Your task to perform on an android device: Search for custom made wallets on etsy.com Image 0: 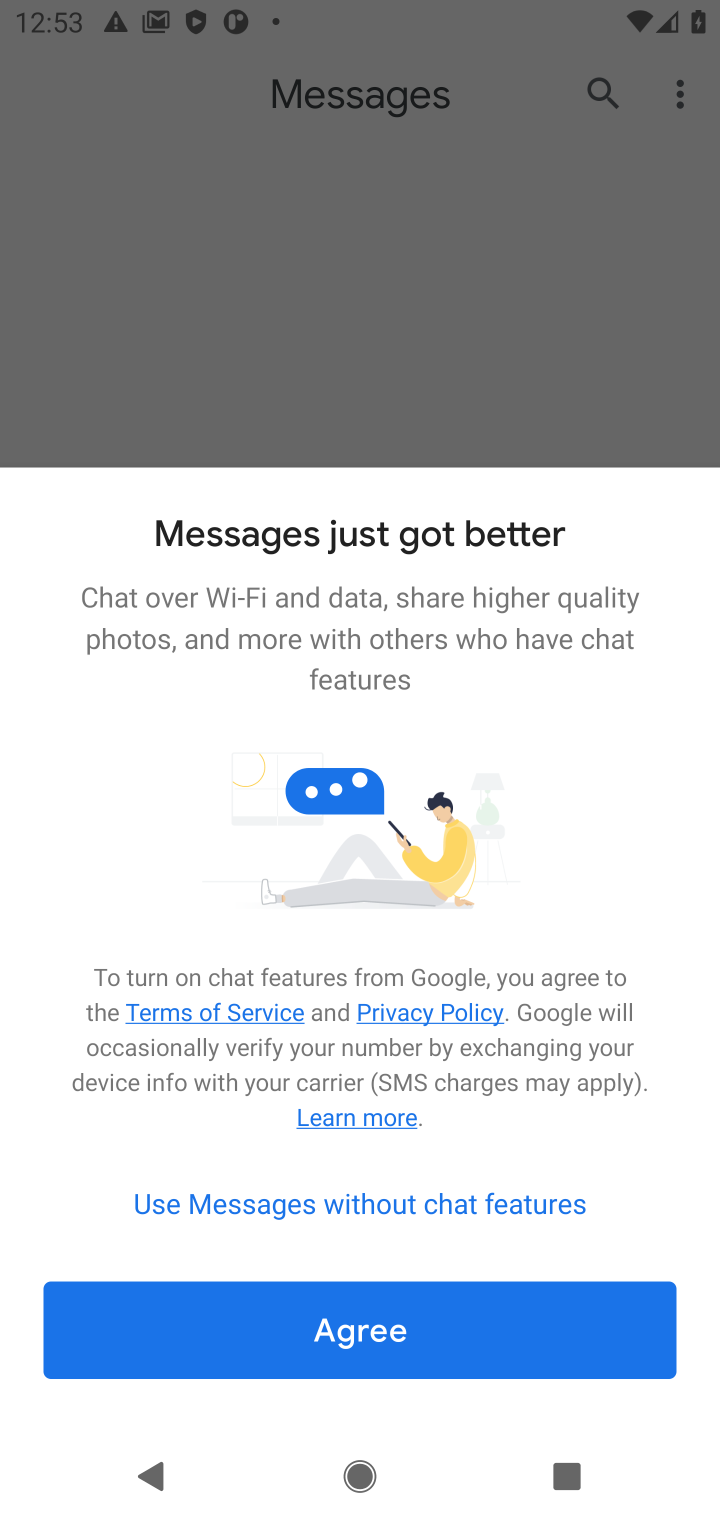
Step 0: press home button
Your task to perform on an android device: Search for custom made wallets on etsy.com Image 1: 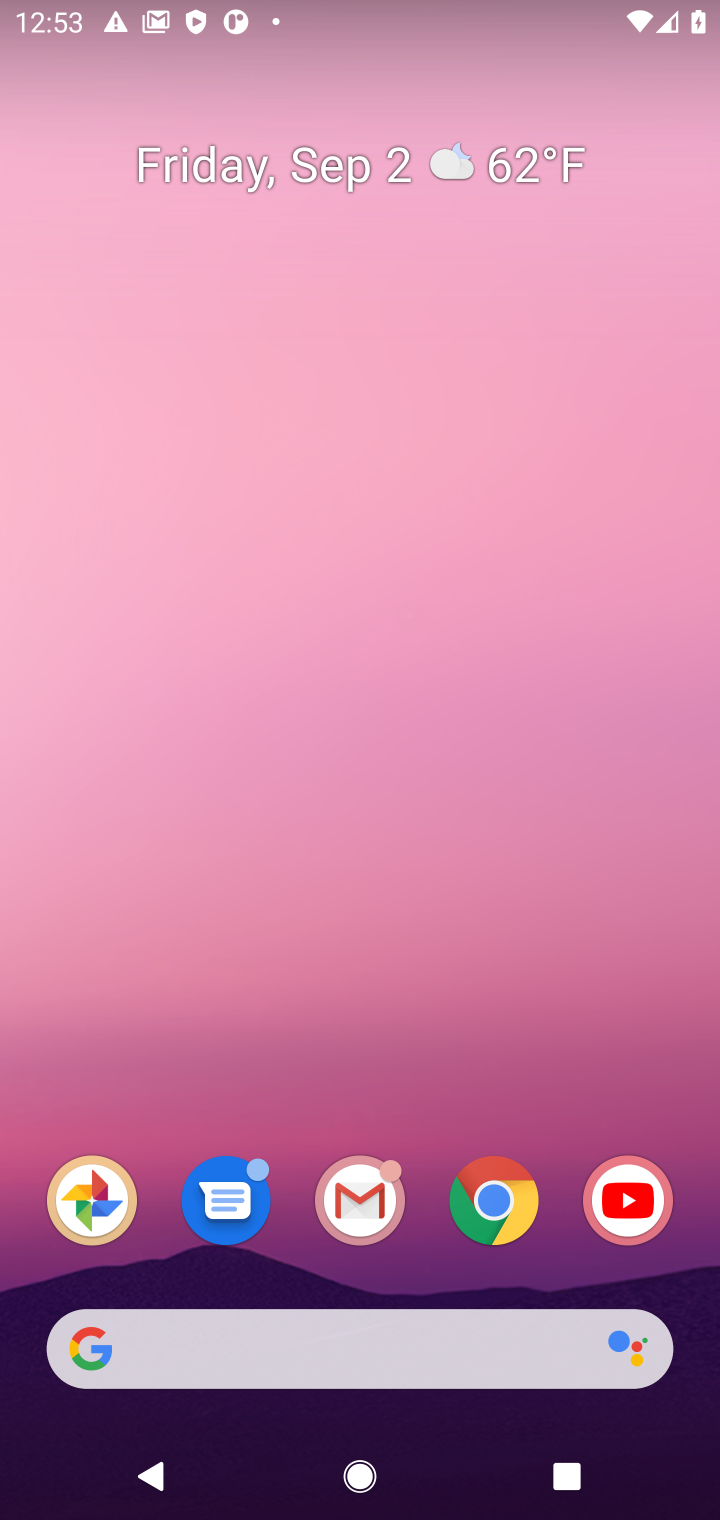
Step 1: click (512, 1201)
Your task to perform on an android device: Search for custom made wallets on etsy.com Image 2: 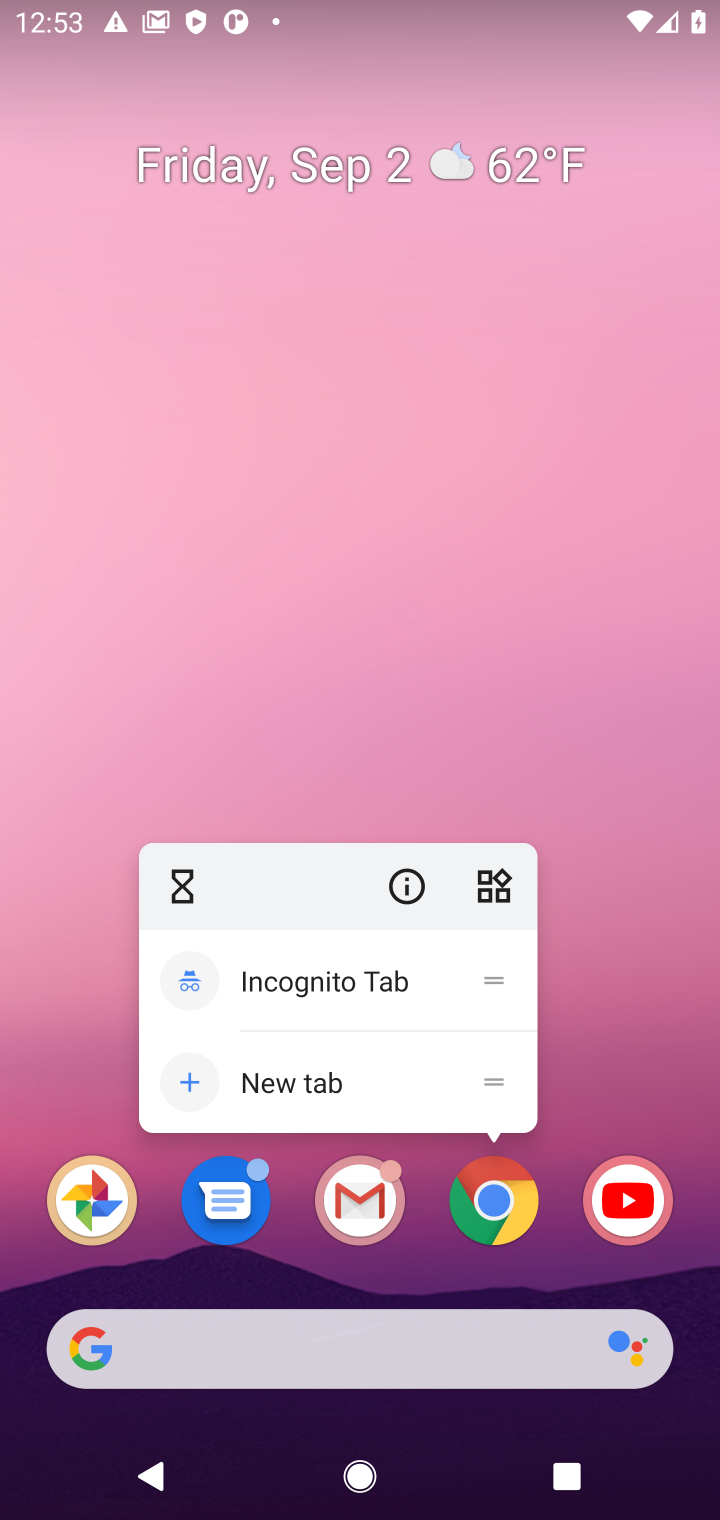
Step 2: click (512, 1201)
Your task to perform on an android device: Search for custom made wallets on etsy.com Image 3: 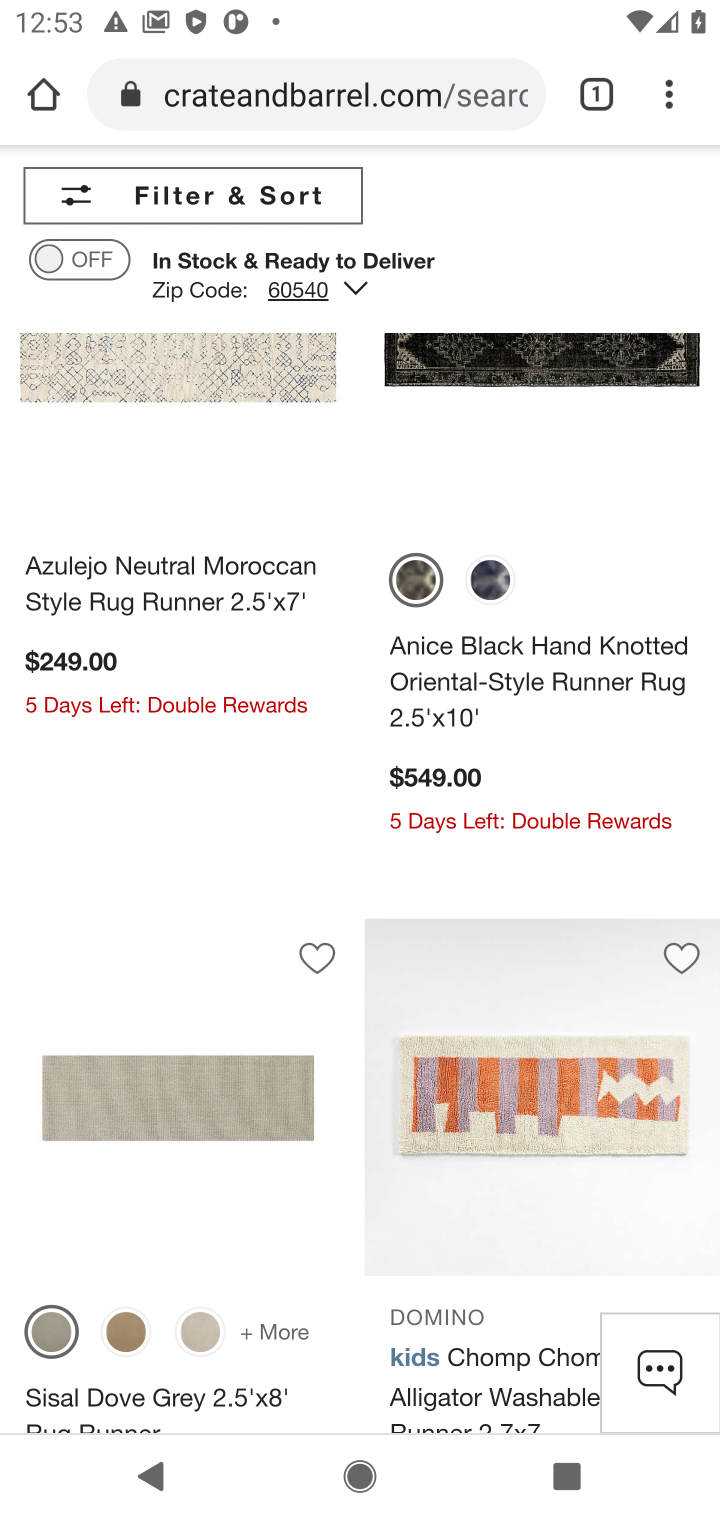
Step 3: click (378, 87)
Your task to perform on an android device: Search for custom made wallets on etsy.com Image 4: 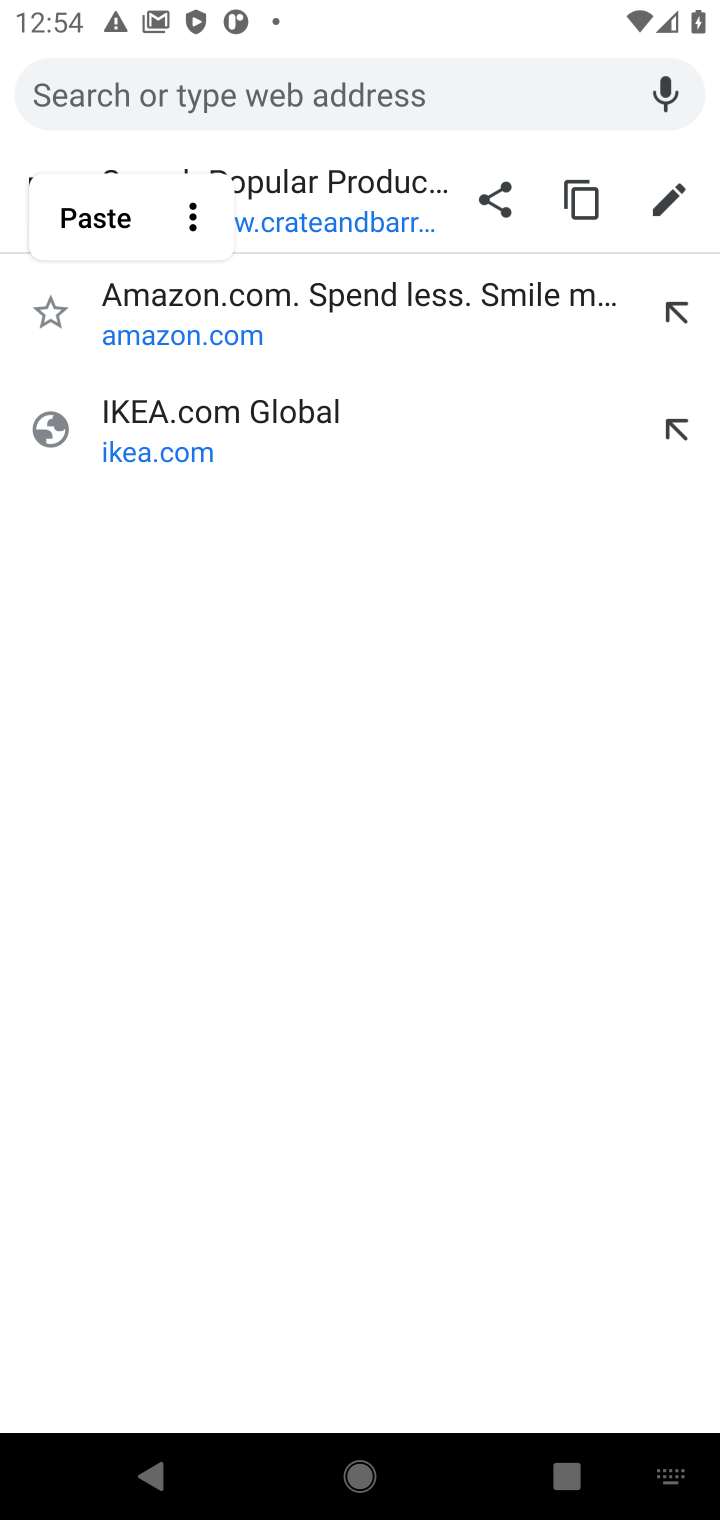
Step 4: press enter
Your task to perform on an android device: Search for custom made wallets on etsy.com Image 5: 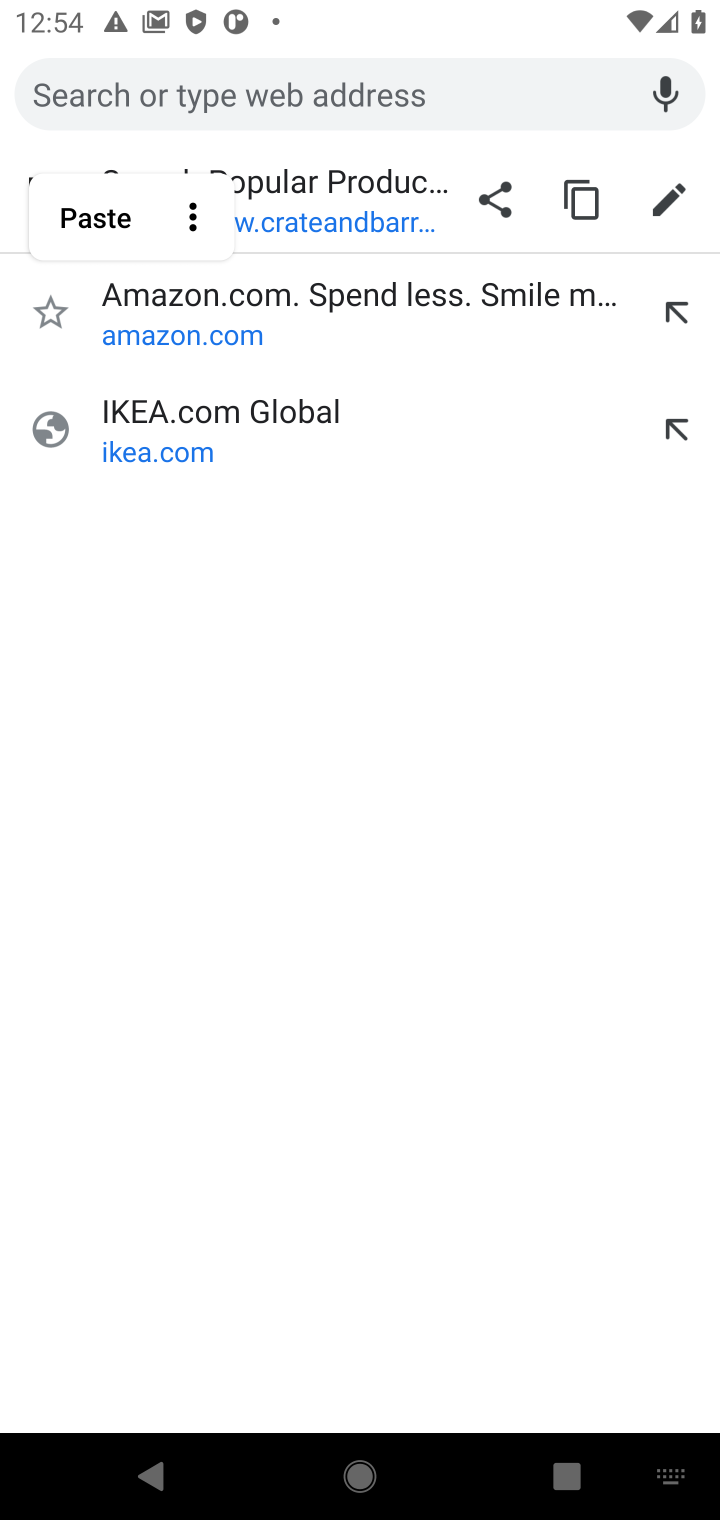
Step 5: type "etsy.com"
Your task to perform on an android device: Search for custom made wallets on etsy.com Image 6: 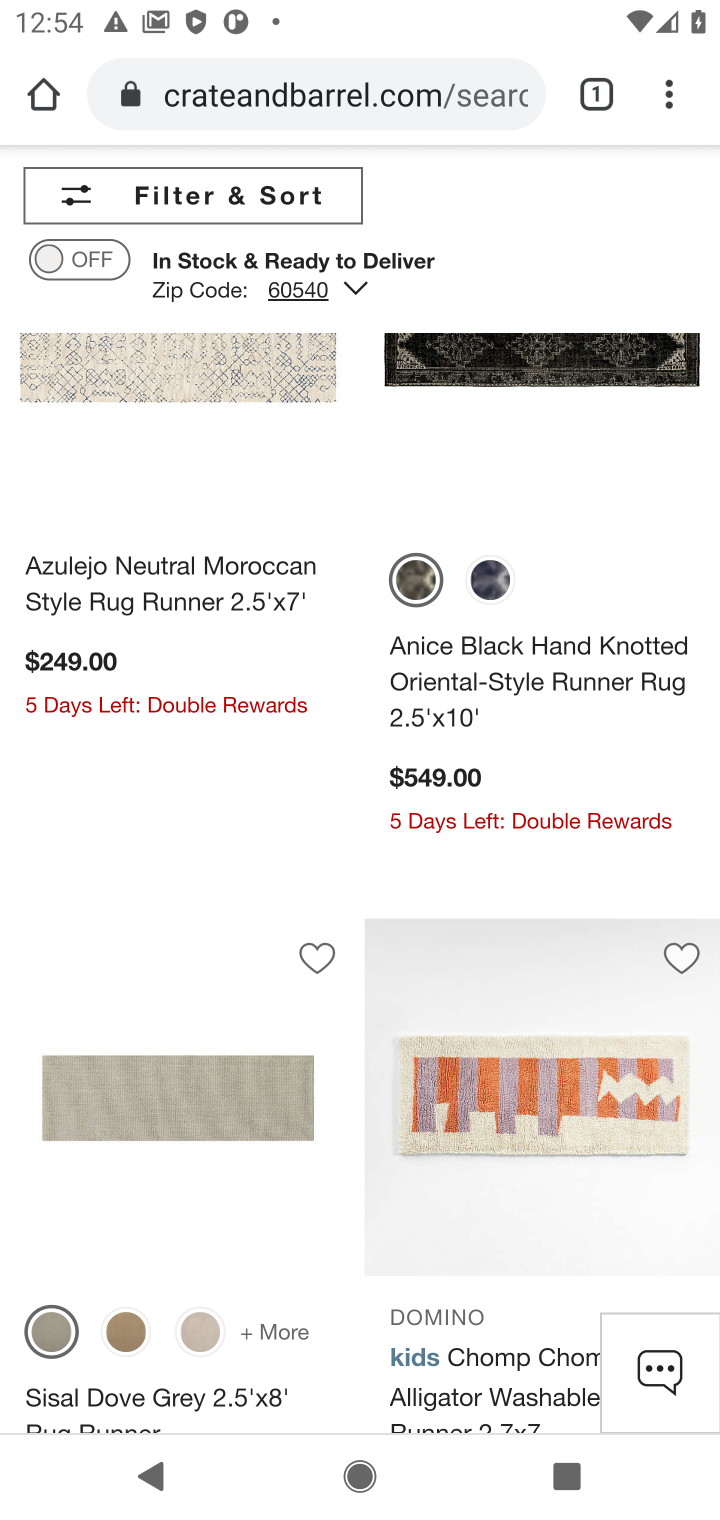
Step 6: click (408, 82)
Your task to perform on an android device: Search for custom made wallets on etsy.com Image 7: 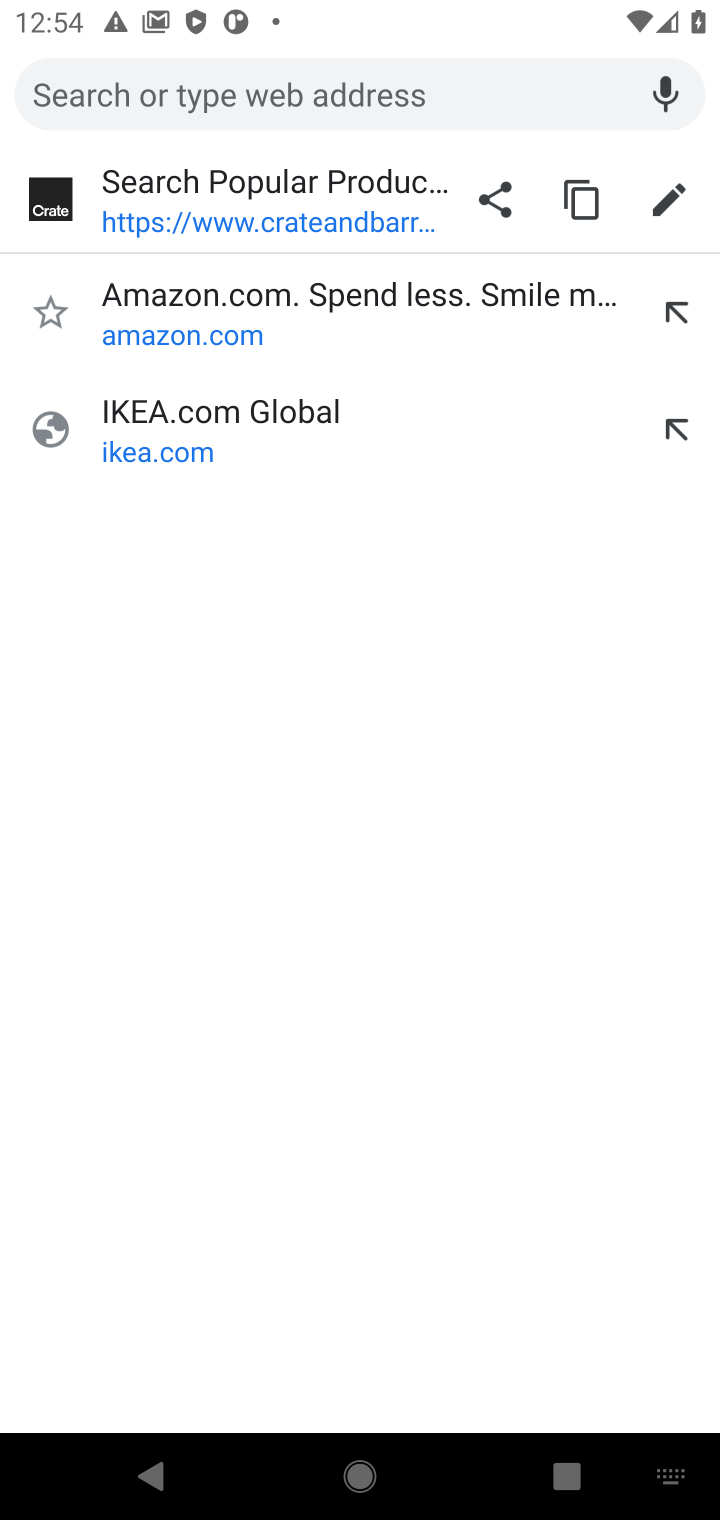
Step 7: type "etsy.com"
Your task to perform on an android device: Search for custom made wallets on etsy.com Image 8: 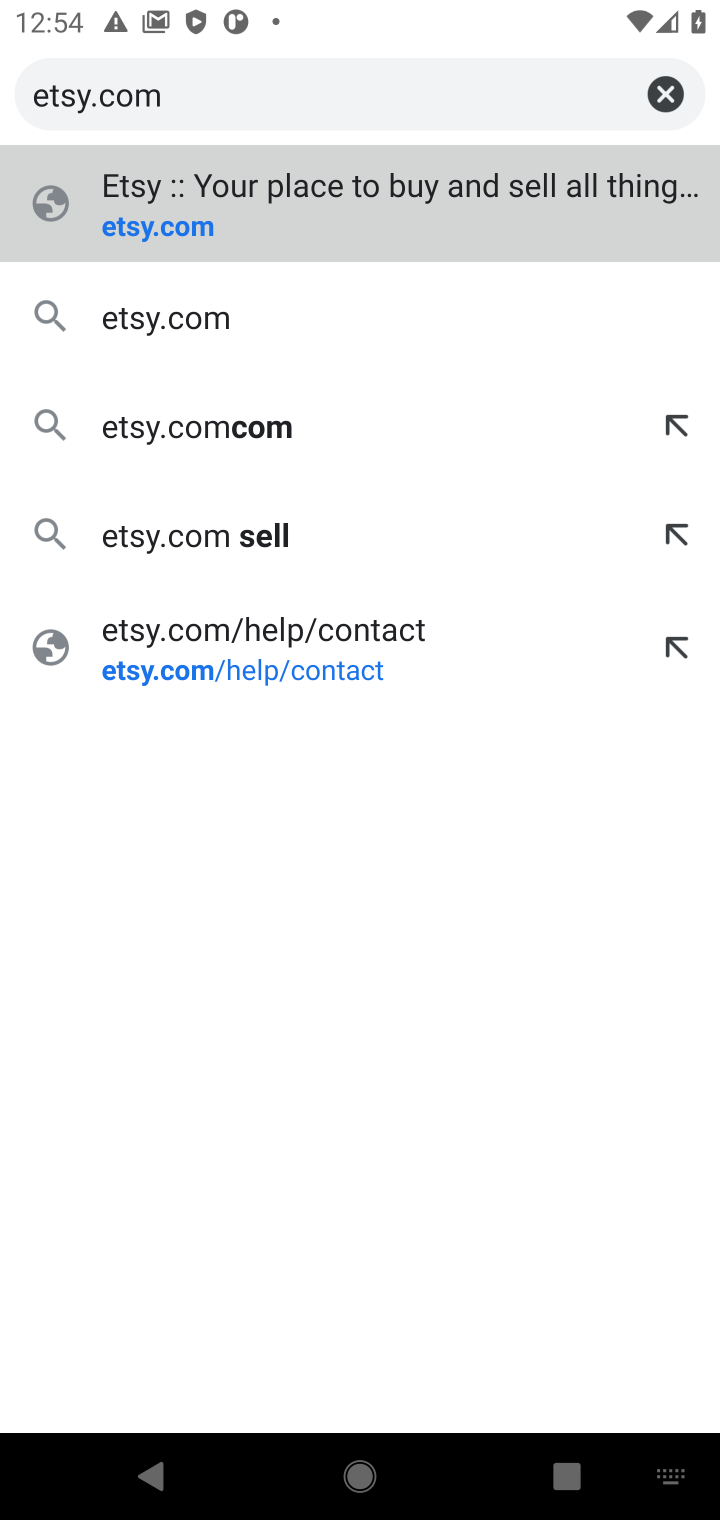
Step 8: press enter
Your task to perform on an android device: Search for custom made wallets on etsy.com Image 9: 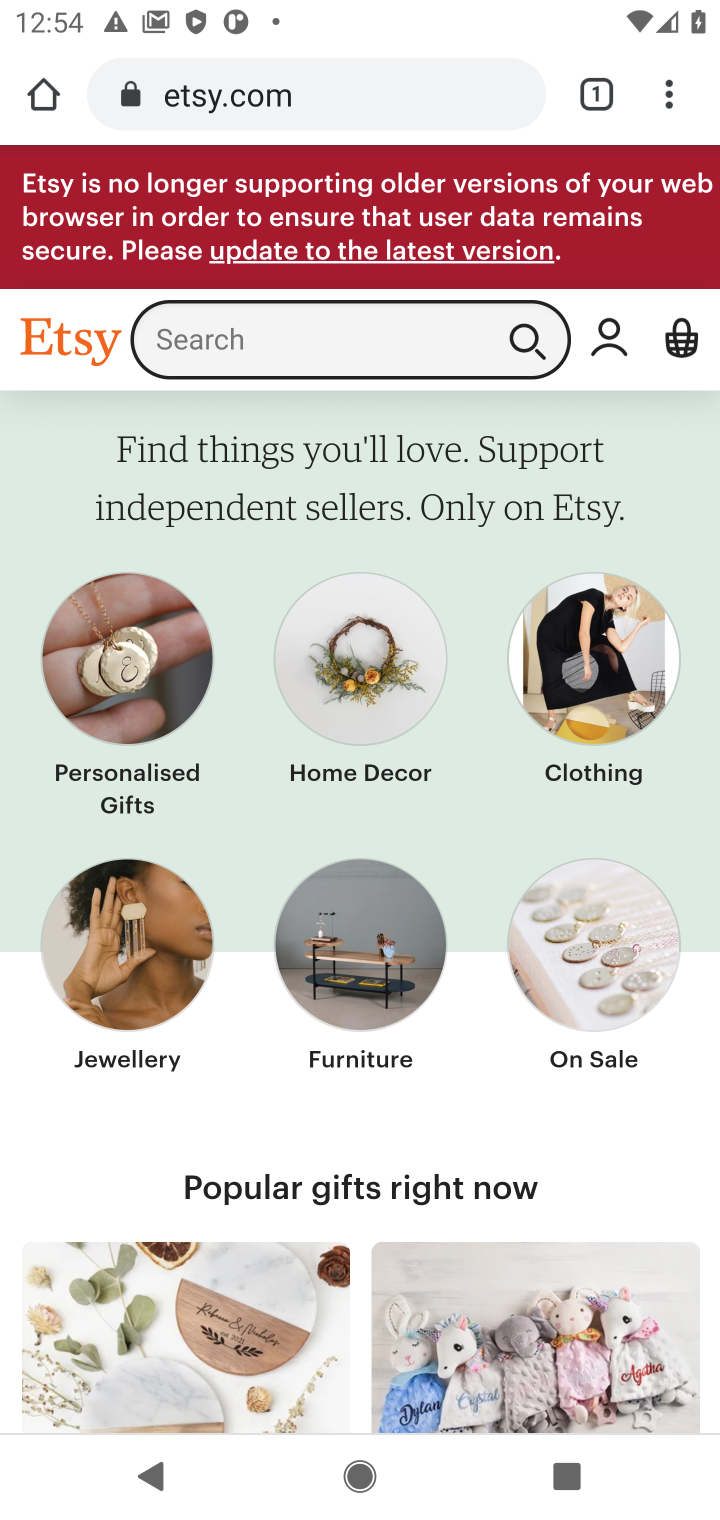
Step 9: click (355, 357)
Your task to perform on an android device: Search for custom made wallets on etsy.com Image 10: 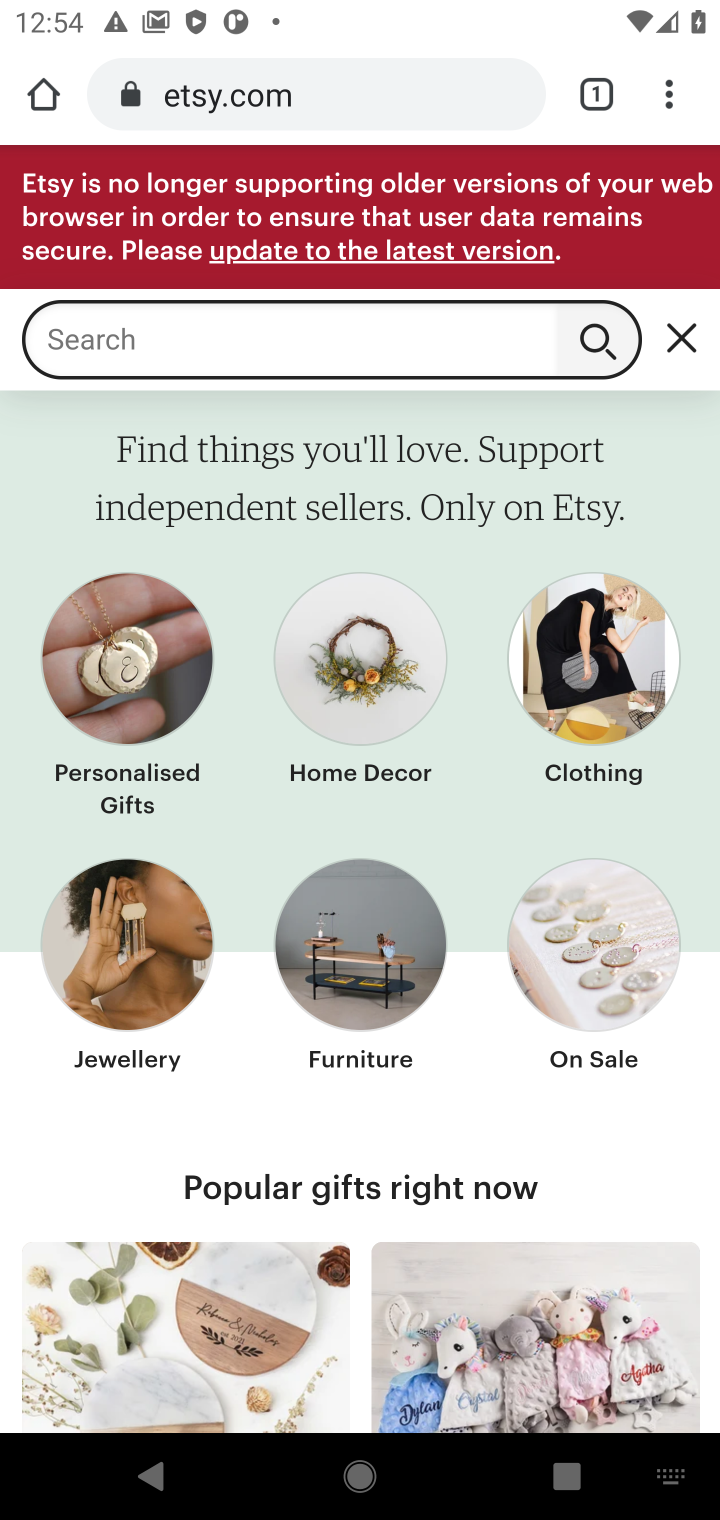
Step 10: click (387, 339)
Your task to perform on an android device: Search for custom made wallets on etsy.com Image 11: 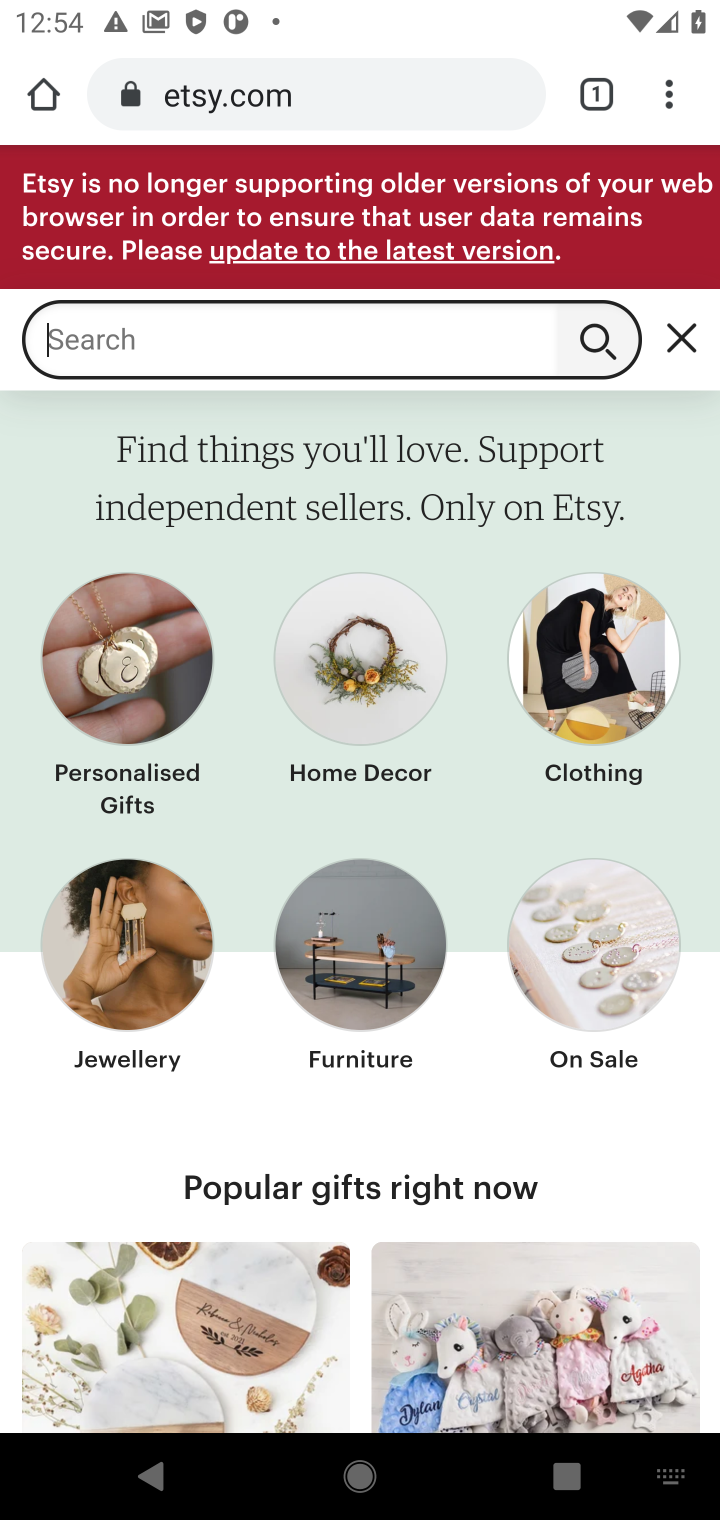
Step 11: press enter
Your task to perform on an android device: Search for custom made wallets on etsy.com Image 12: 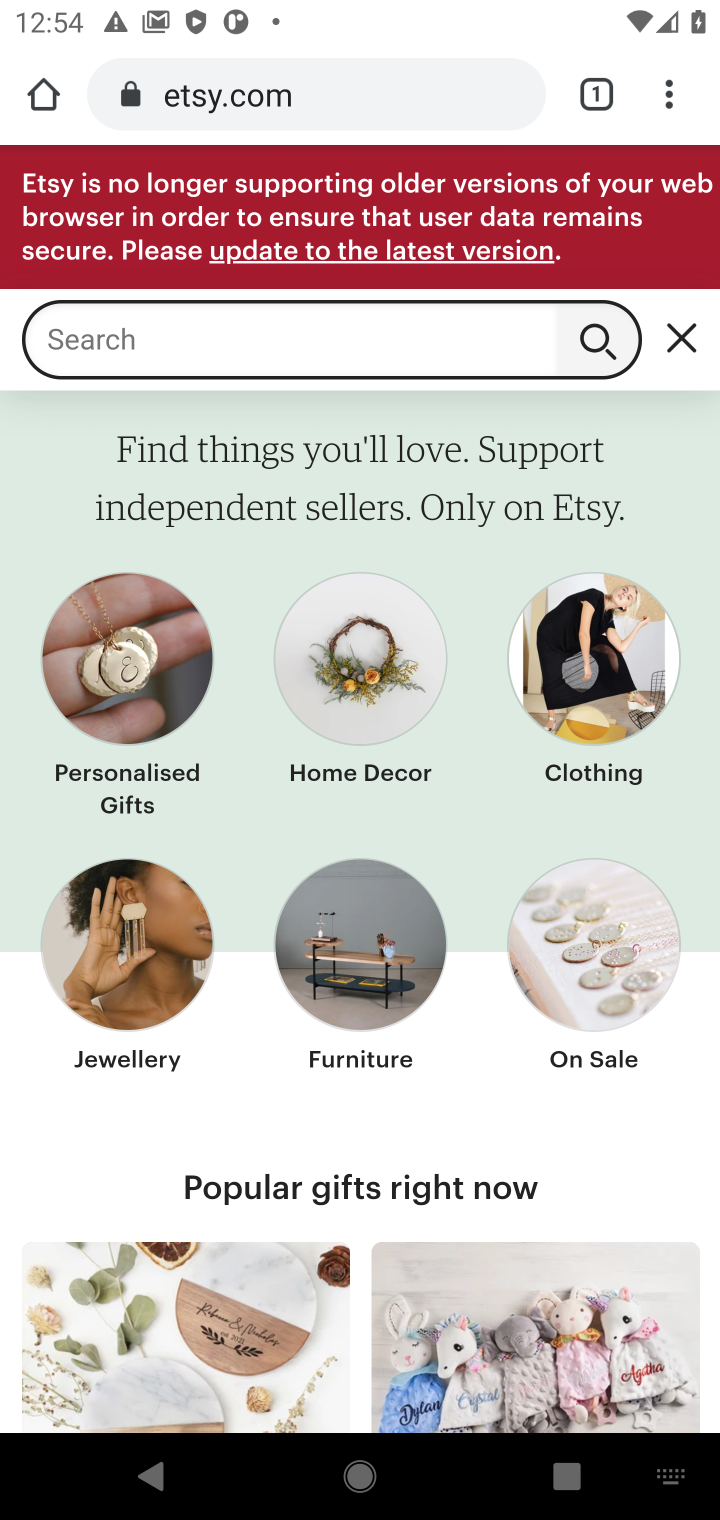
Step 12: type " custom made wallets"
Your task to perform on an android device: Search for custom made wallets on etsy.com Image 13: 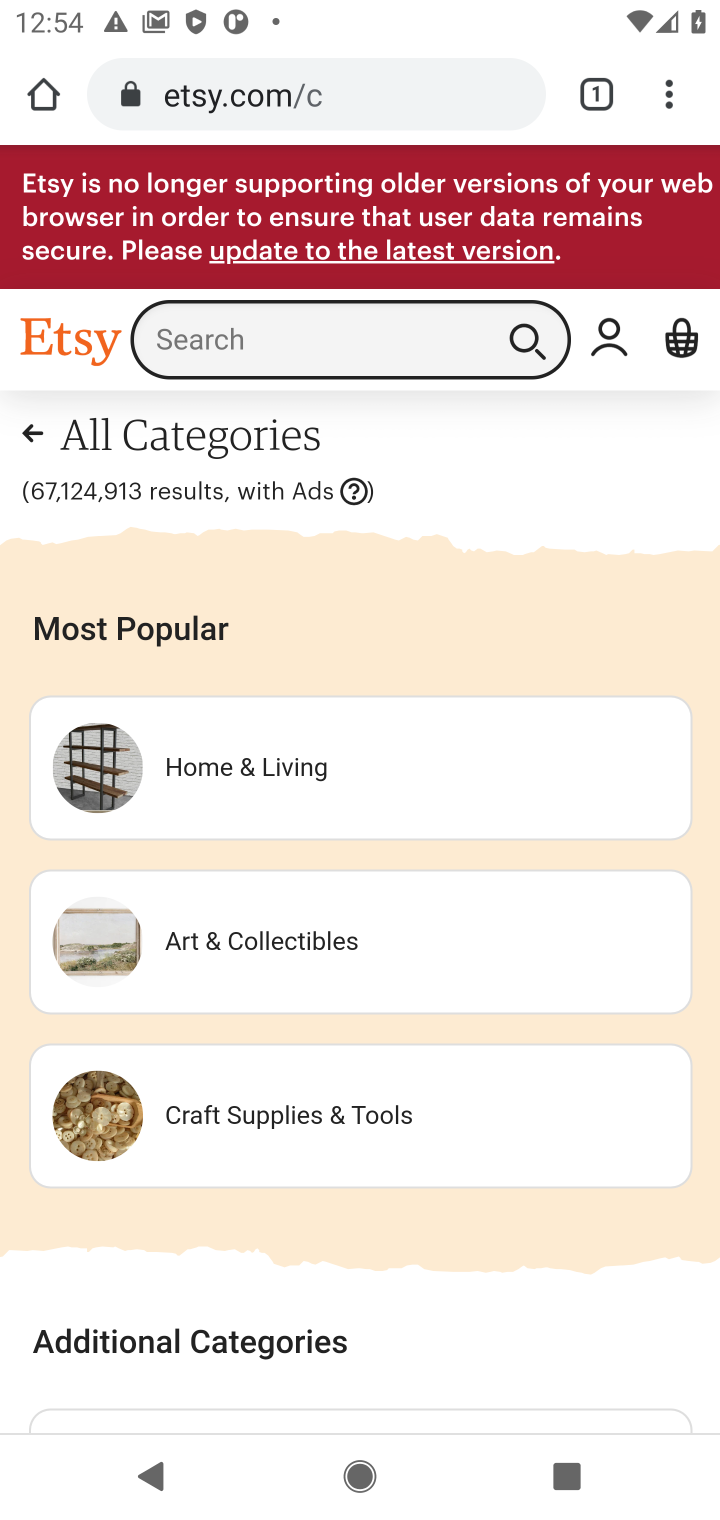
Step 13: drag from (320, 1030) to (332, 907)
Your task to perform on an android device: Search for custom made wallets on etsy.com Image 14: 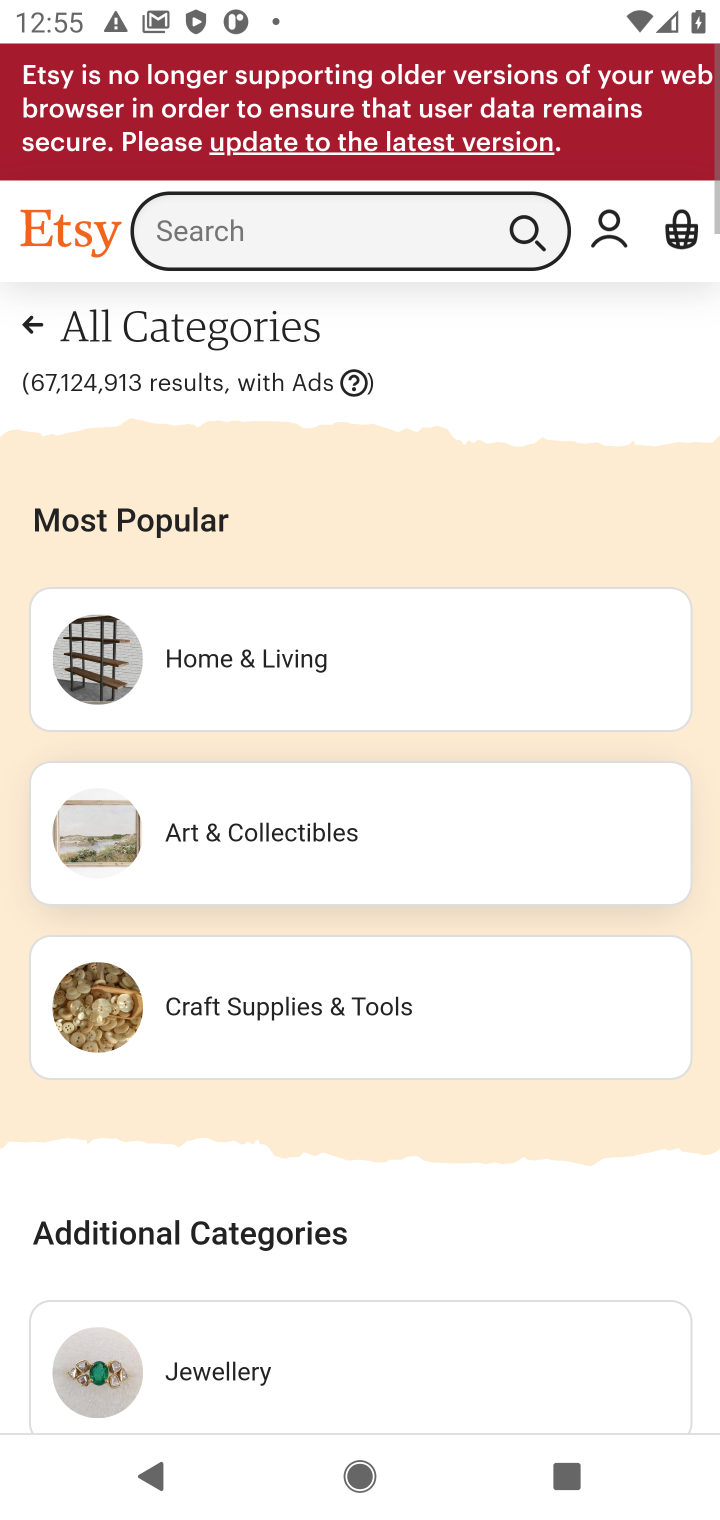
Step 14: click (220, 109)
Your task to perform on an android device: Search for custom made wallets on etsy.com Image 15: 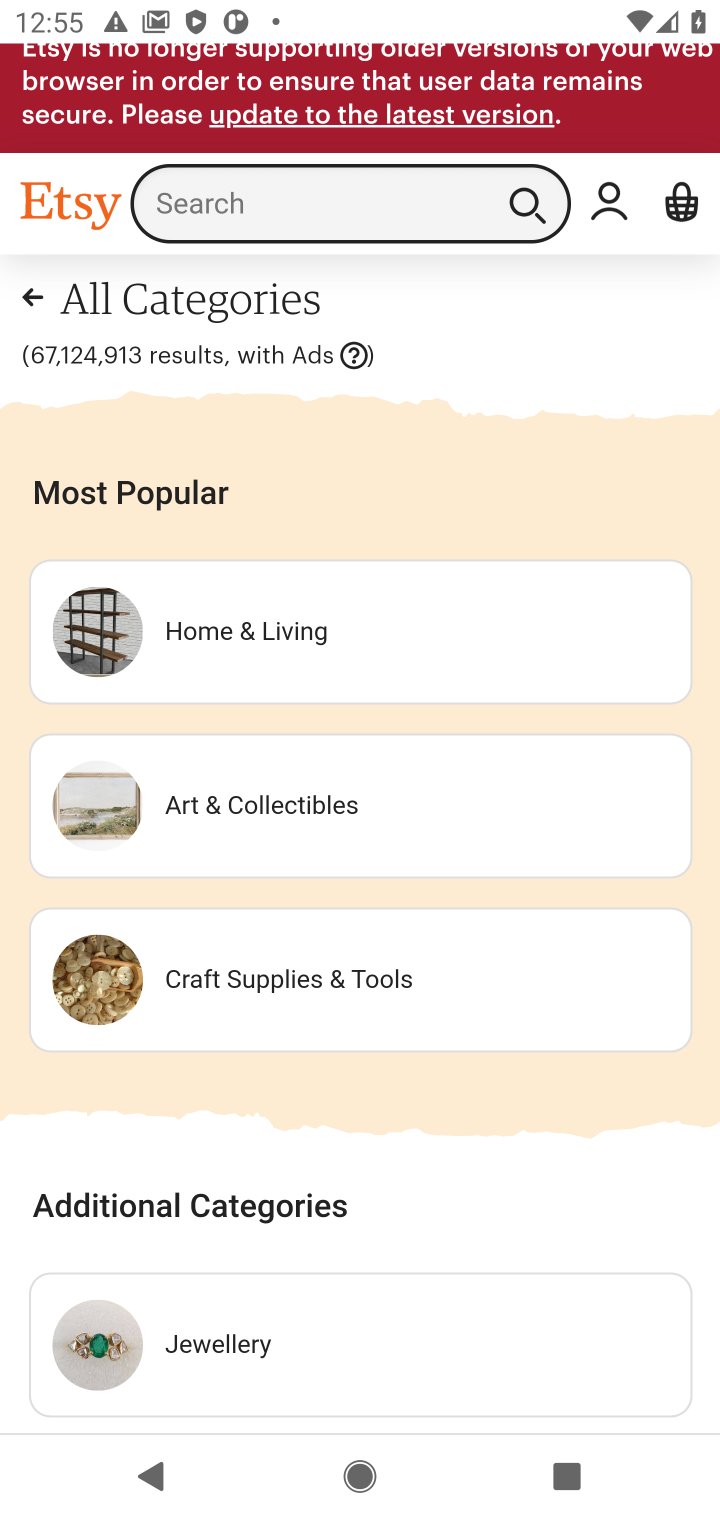
Step 15: click (329, 199)
Your task to perform on an android device: Search for custom made wallets on etsy.com Image 16: 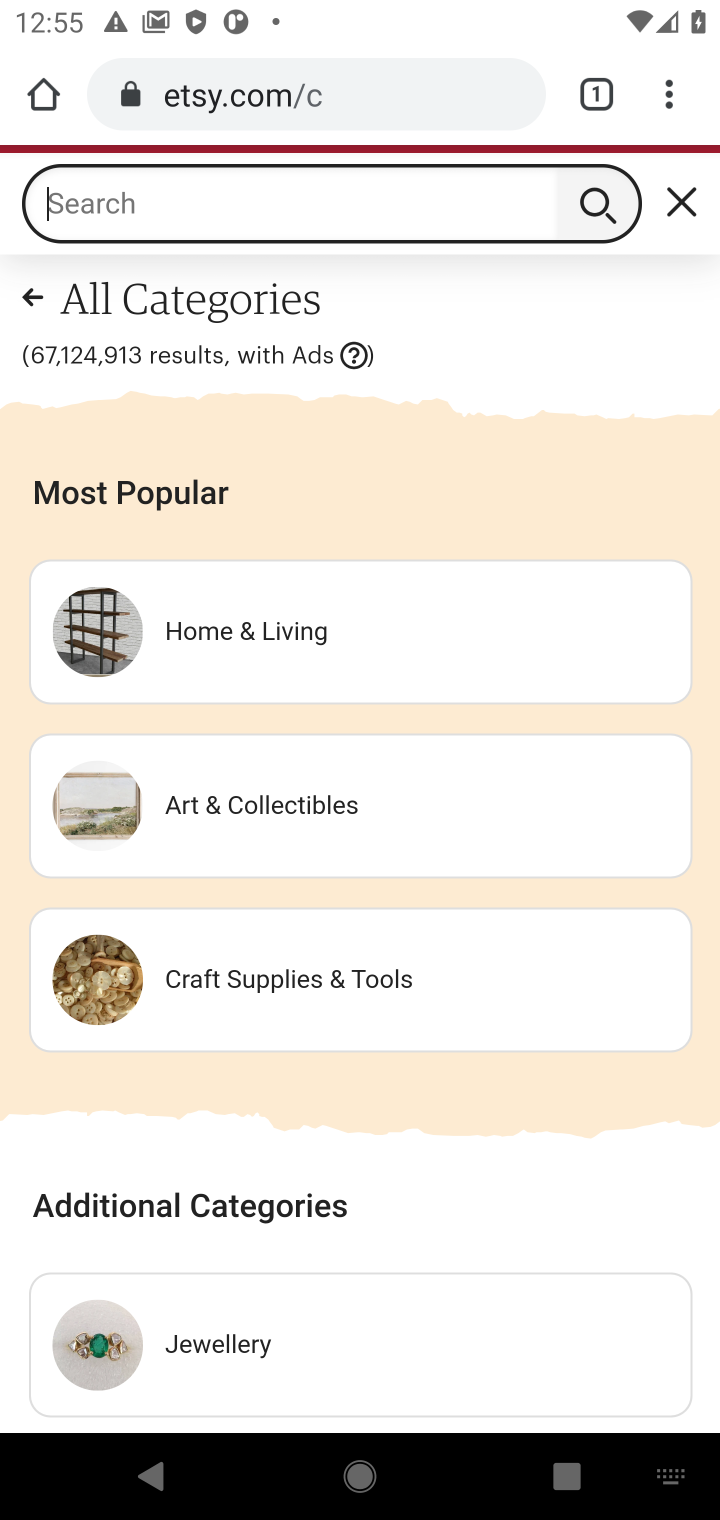
Step 16: type " custom made wallets"
Your task to perform on an android device: Search for custom made wallets on etsy.com Image 17: 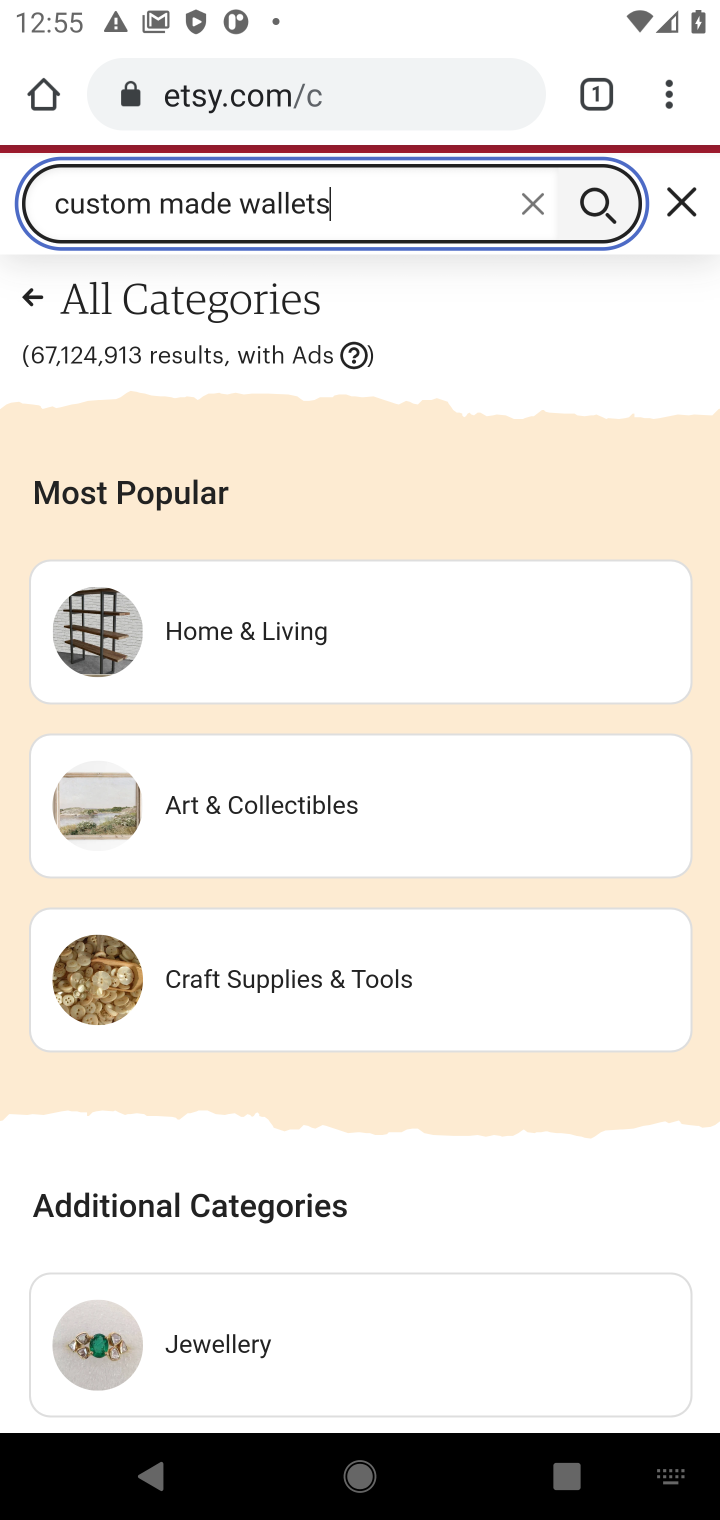
Step 17: press enter
Your task to perform on an android device: Search for custom made wallets on etsy.com Image 18: 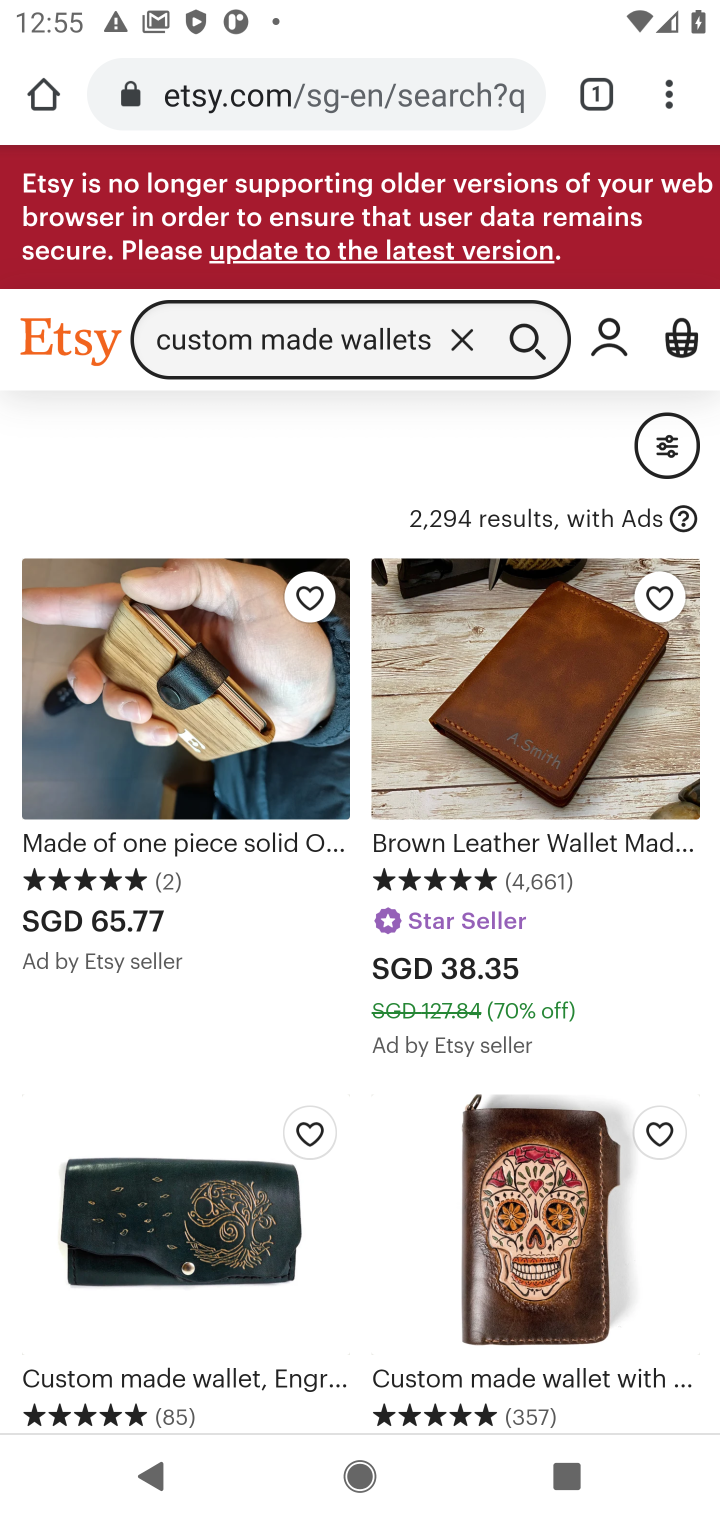
Step 18: drag from (521, 828) to (615, 615)
Your task to perform on an android device: Search for custom made wallets on etsy.com Image 19: 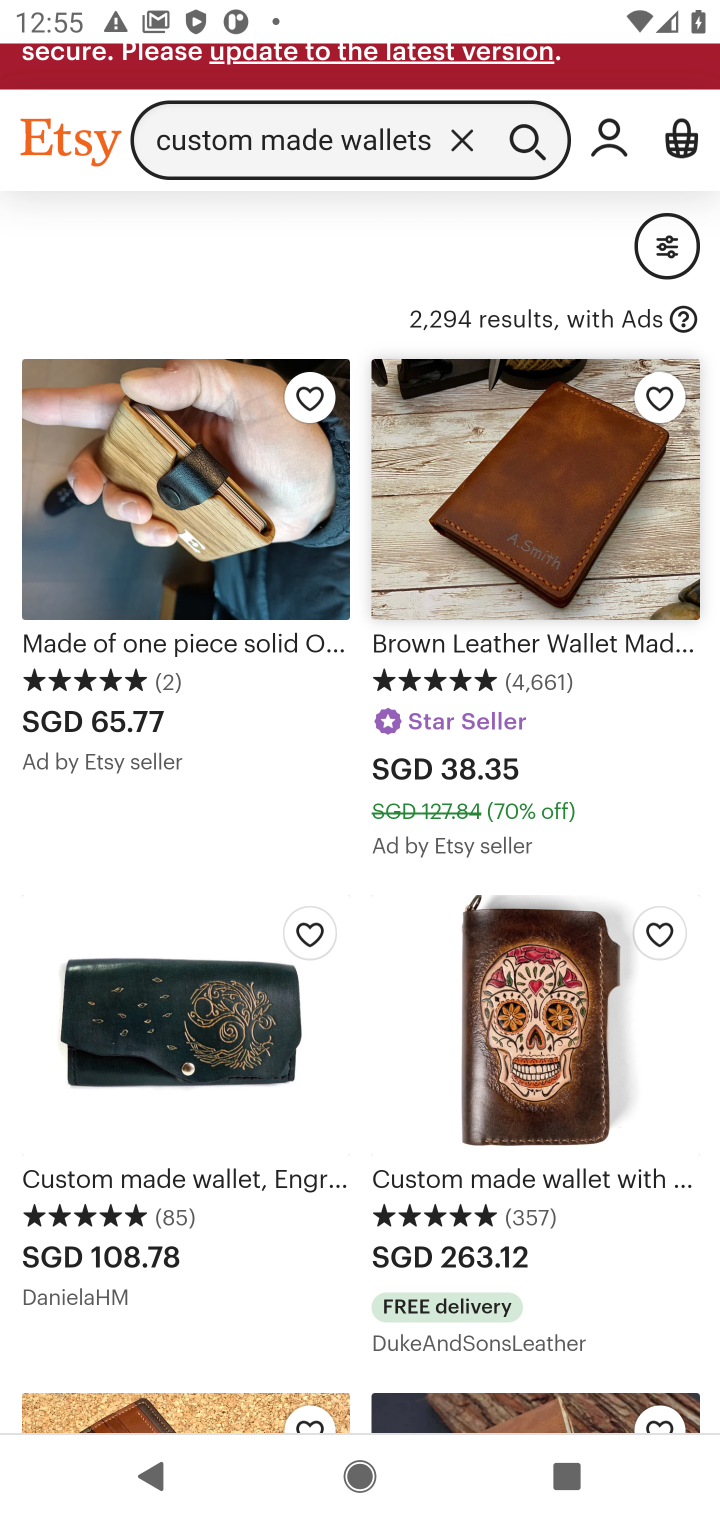
Step 19: drag from (363, 1031) to (714, 346)
Your task to perform on an android device: Search for custom made wallets on etsy.com Image 20: 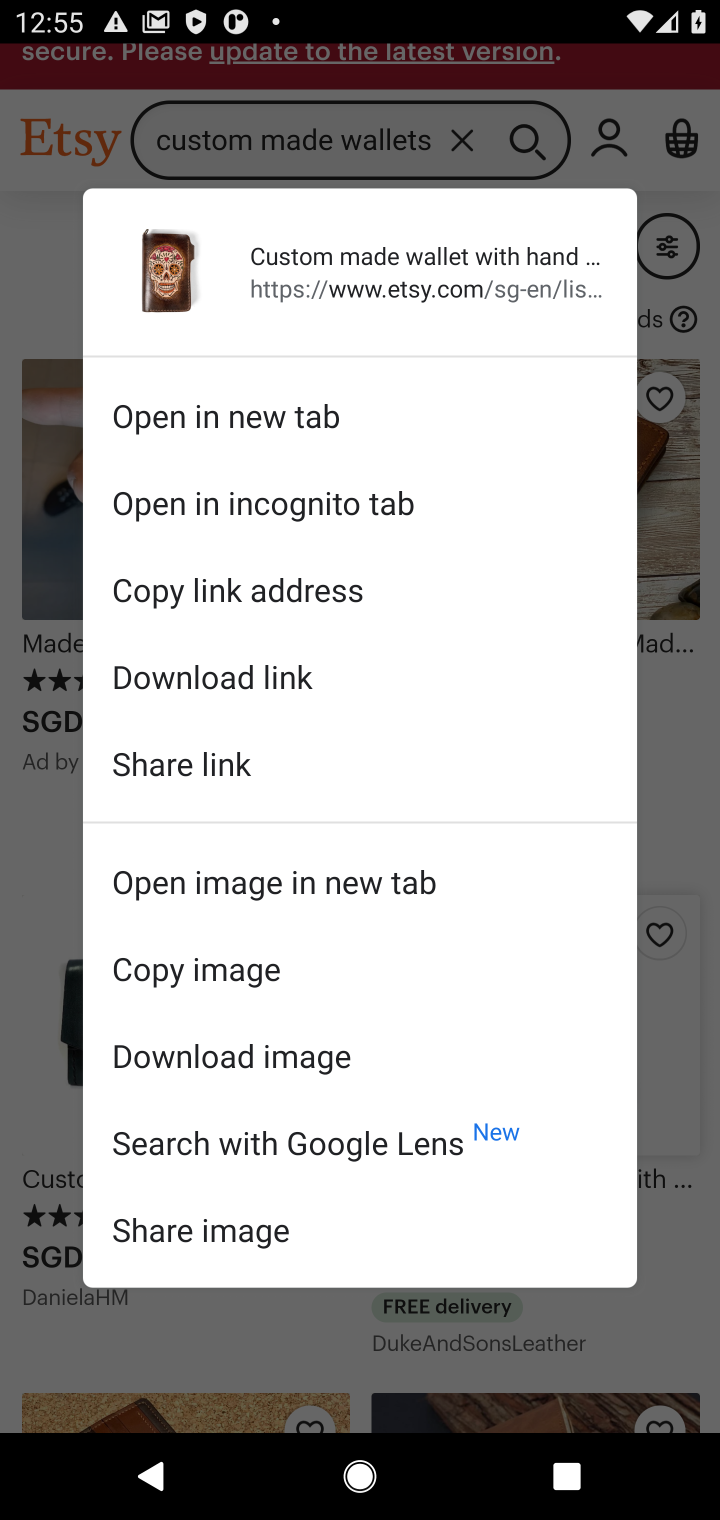
Step 20: click (704, 1007)
Your task to perform on an android device: Search for custom made wallets on etsy.com Image 21: 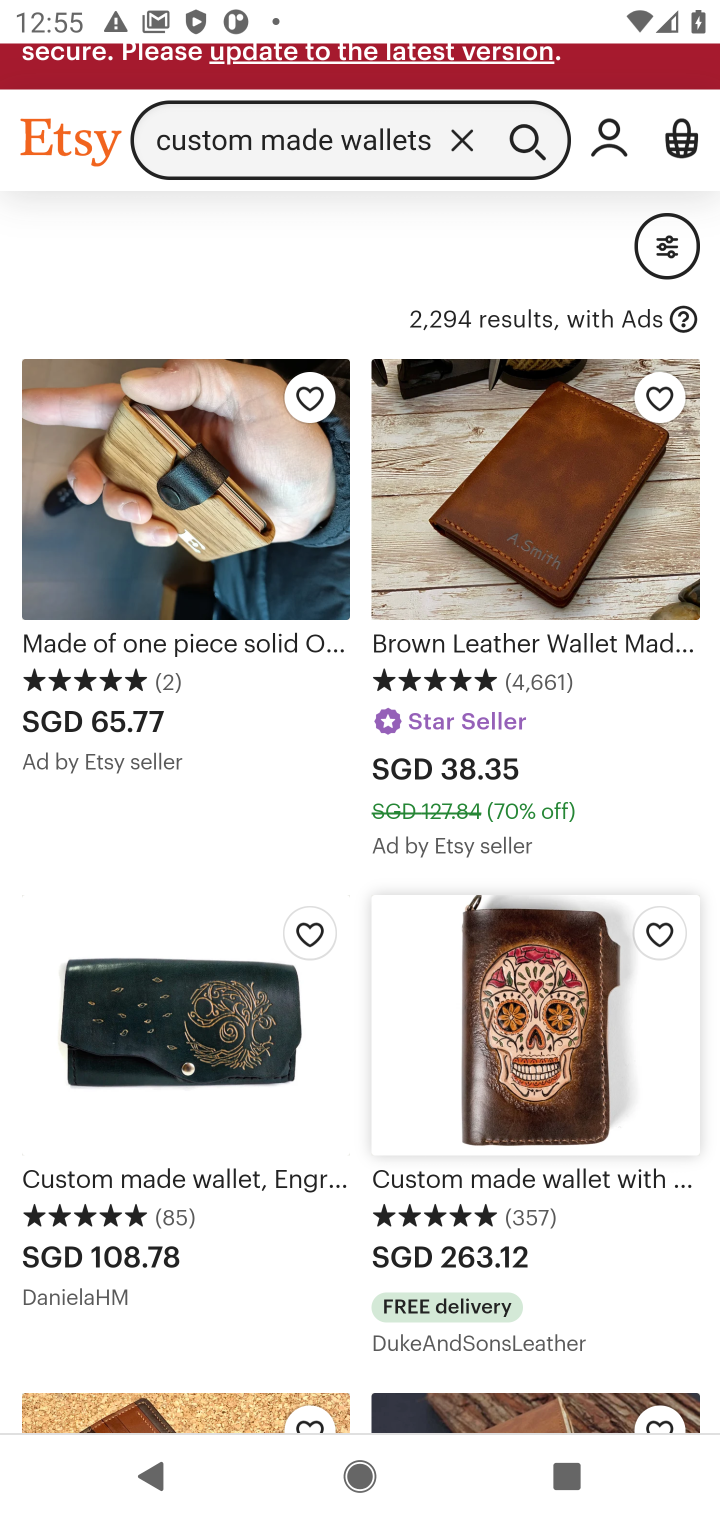
Step 21: task complete